Your task to perform on an android device: change the clock display to digital Image 0: 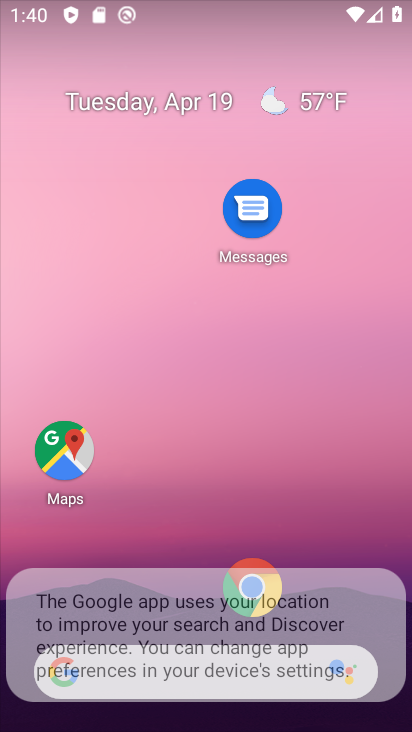
Step 0: drag from (141, 573) to (190, 48)
Your task to perform on an android device: change the clock display to digital Image 1: 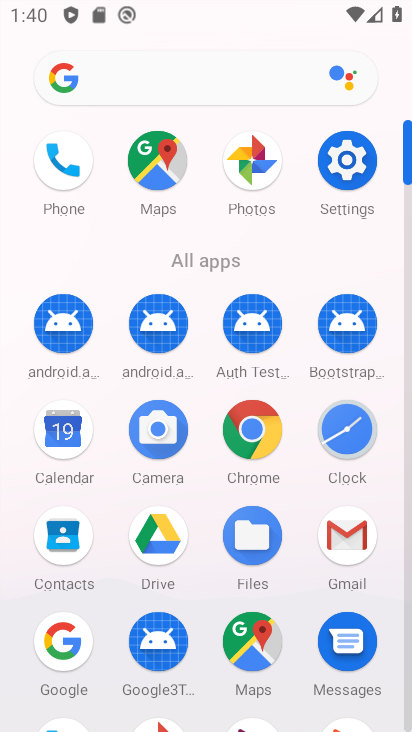
Step 1: click (336, 425)
Your task to perform on an android device: change the clock display to digital Image 2: 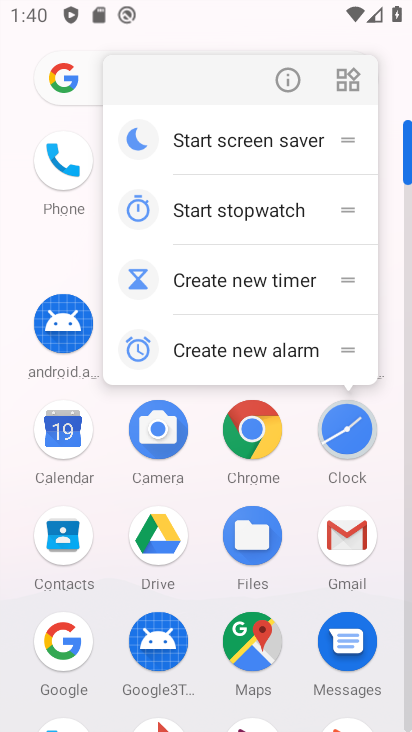
Step 2: click (346, 432)
Your task to perform on an android device: change the clock display to digital Image 3: 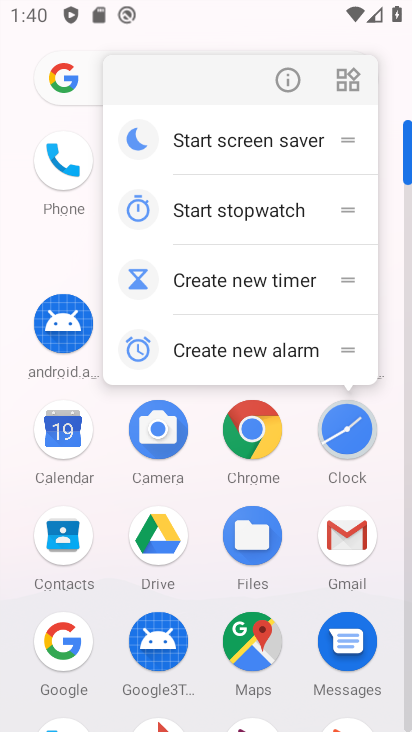
Step 3: click (351, 430)
Your task to perform on an android device: change the clock display to digital Image 4: 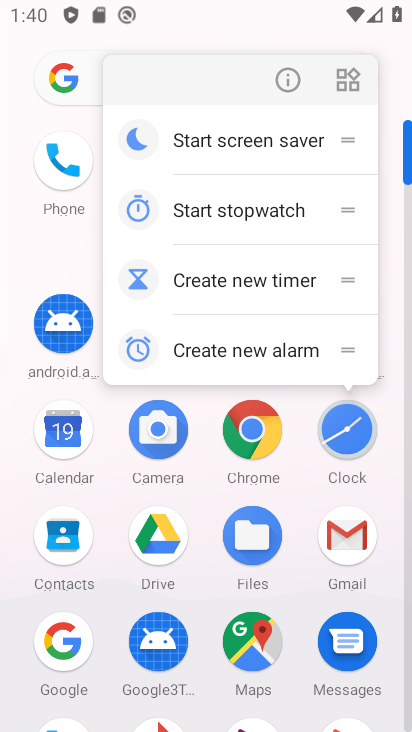
Step 4: click (351, 430)
Your task to perform on an android device: change the clock display to digital Image 5: 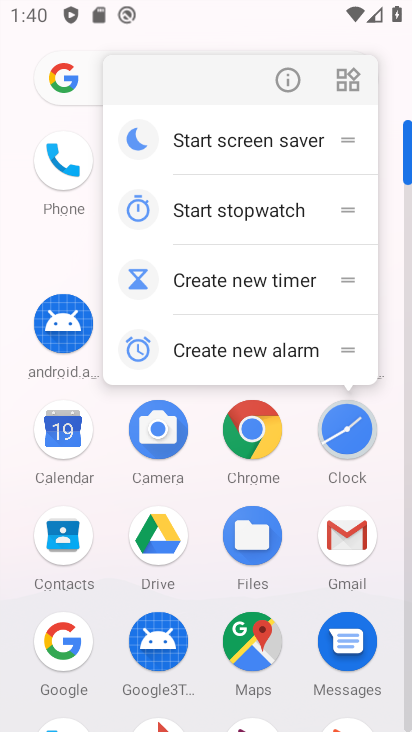
Step 5: click (351, 430)
Your task to perform on an android device: change the clock display to digital Image 6: 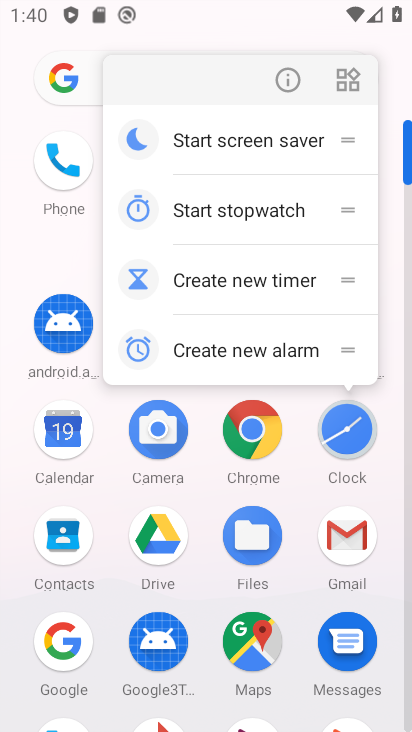
Step 6: click (352, 431)
Your task to perform on an android device: change the clock display to digital Image 7: 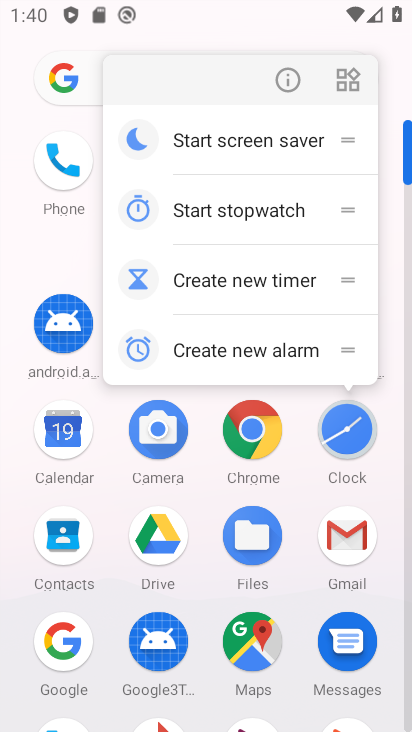
Step 7: click (350, 445)
Your task to perform on an android device: change the clock display to digital Image 8: 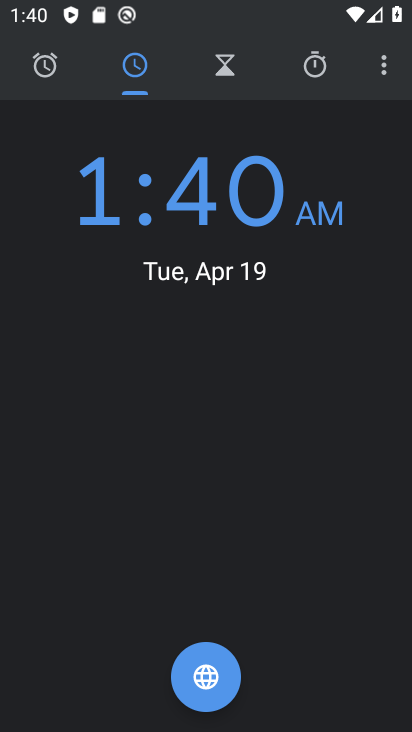
Step 8: click (394, 66)
Your task to perform on an android device: change the clock display to digital Image 9: 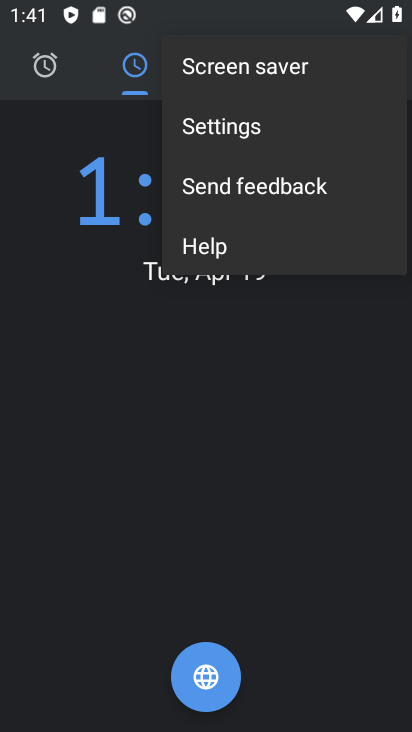
Step 9: click (325, 131)
Your task to perform on an android device: change the clock display to digital Image 10: 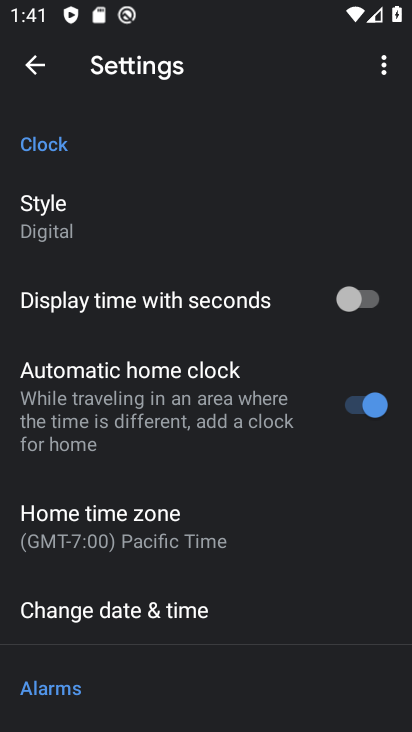
Step 10: task complete